Your task to perform on an android device: Open ESPN.com Image 0: 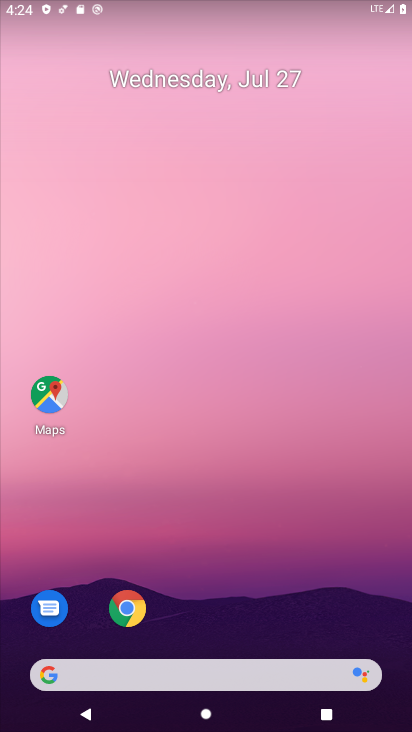
Step 0: drag from (284, 631) to (142, 101)
Your task to perform on an android device: Open ESPN.com Image 1: 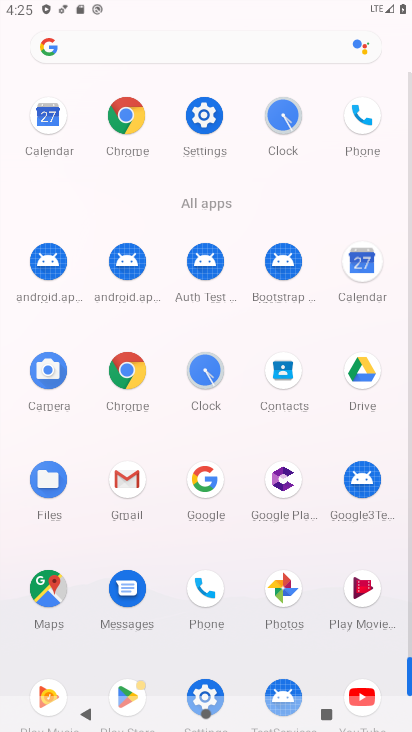
Step 1: click (135, 377)
Your task to perform on an android device: Open ESPN.com Image 2: 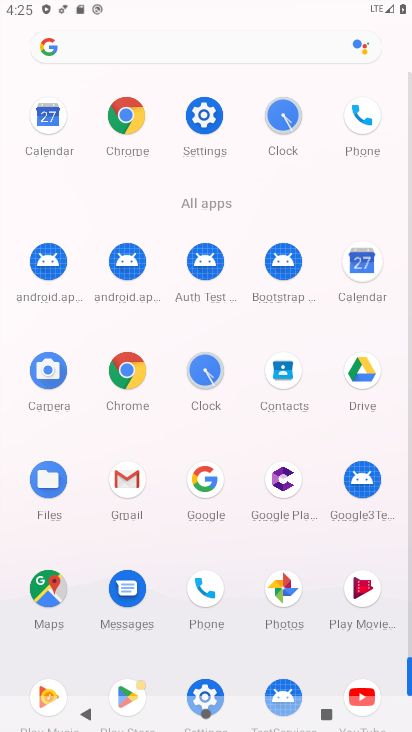
Step 2: click (132, 370)
Your task to perform on an android device: Open ESPN.com Image 3: 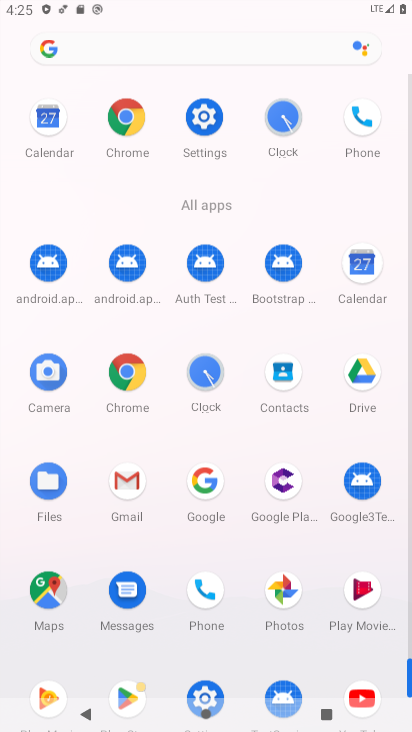
Step 3: click (129, 381)
Your task to perform on an android device: Open ESPN.com Image 4: 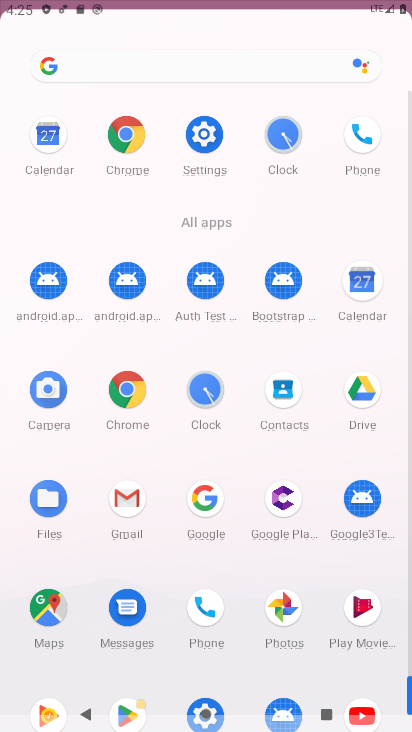
Step 4: click (132, 380)
Your task to perform on an android device: Open ESPN.com Image 5: 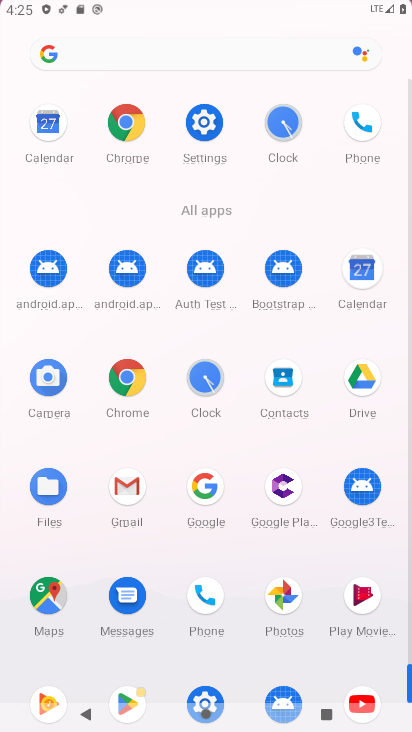
Step 5: click (136, 369)
Your task to perform on an android device: Open ESPN.com Image 6: 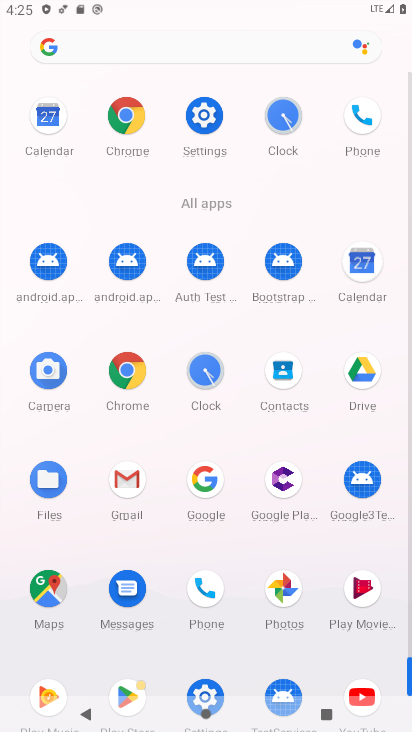
Step 6: click (137, 370)
Your task to perform on an android device: Open ESPN.com Image 7: 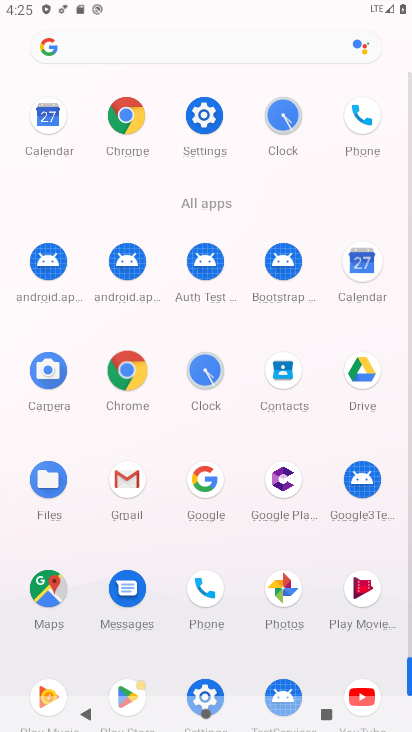
Step 7: click (136, 372)
Your task to perform on an android device: Open ESPN.com Image 8: 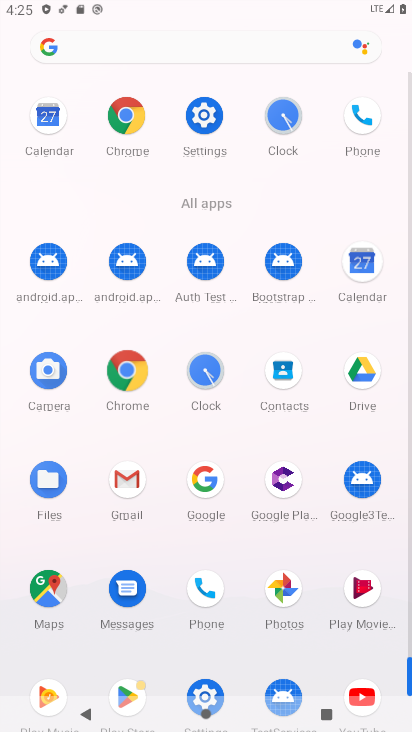
Step 8: click (135, 377)
Your task to perform on an android device: Open ESPN.com Image 9: 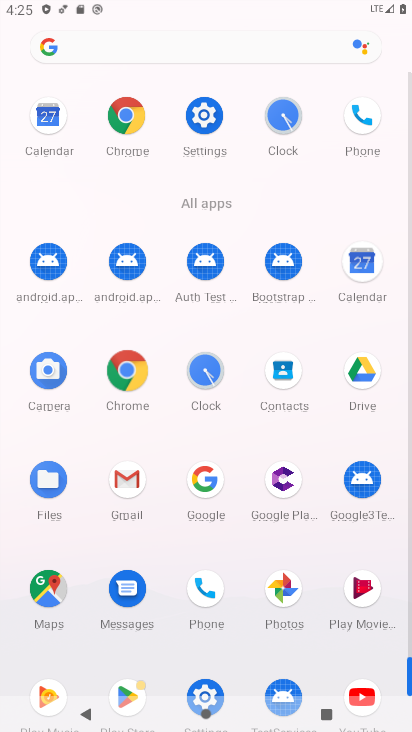
Step 9: click (138, 388)
Your task to perform on an android device: Open ESPN.com Image 10: 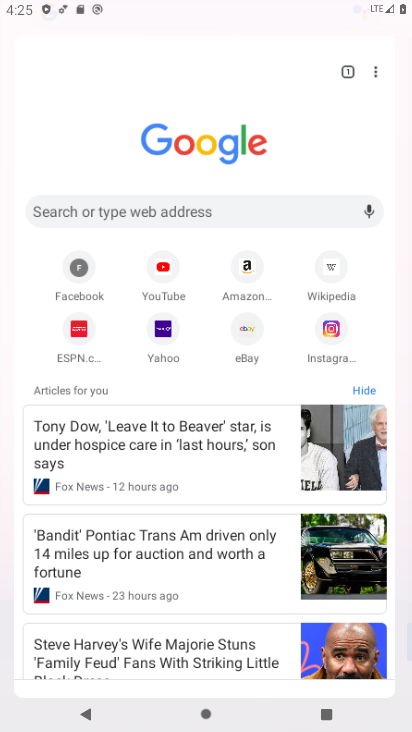
Step 10: click (139, 380)
Your task to perform on an android device: Open ESPN.com Image 11: 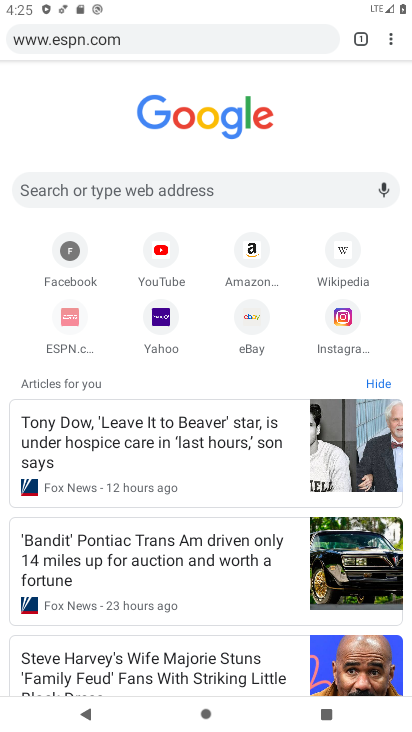
Step 11: click (129, 385)
Your task to perform on an android device: Open ESPN.com Image 12: 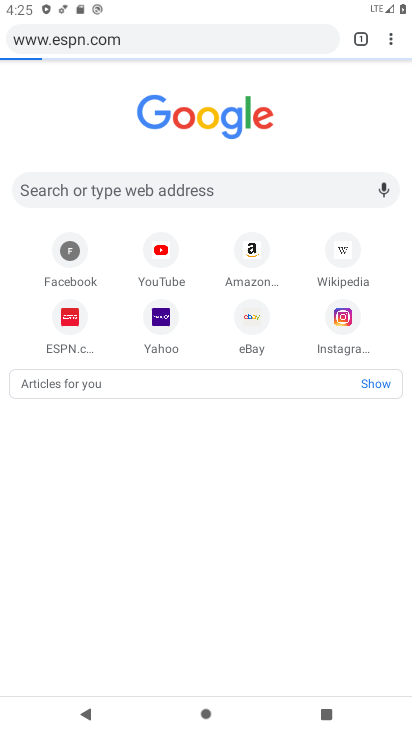
Step 12: click (129, 385)
Your task to perform on an android device: Open ESPN.com Image 13: 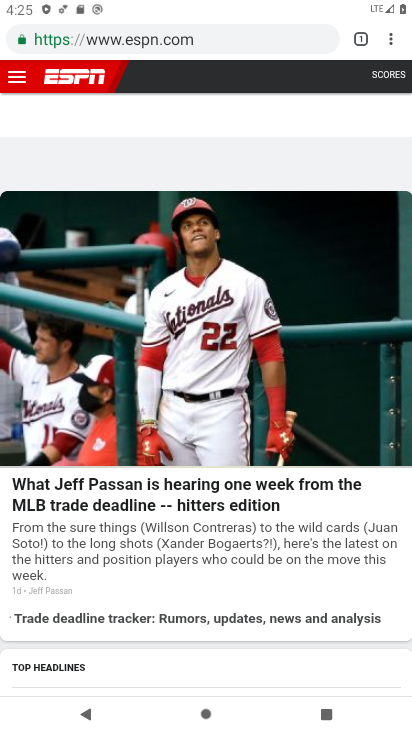
Step 13: task complete